Your task to perform on an android device: turn off wifi Image 0: 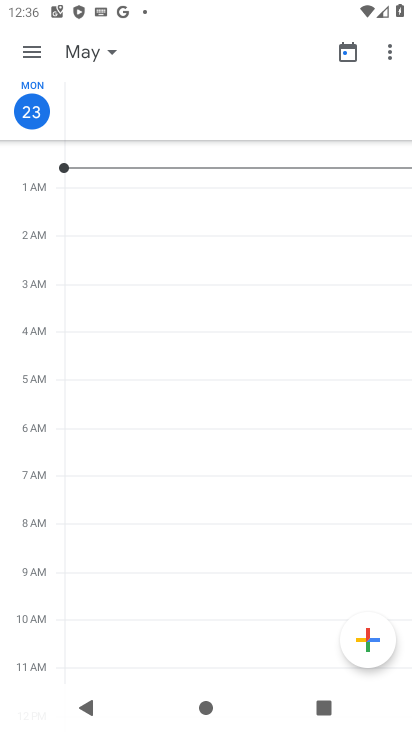
Step 0: press home button
Your task to perform on an android device: turn off wifi Image 1: 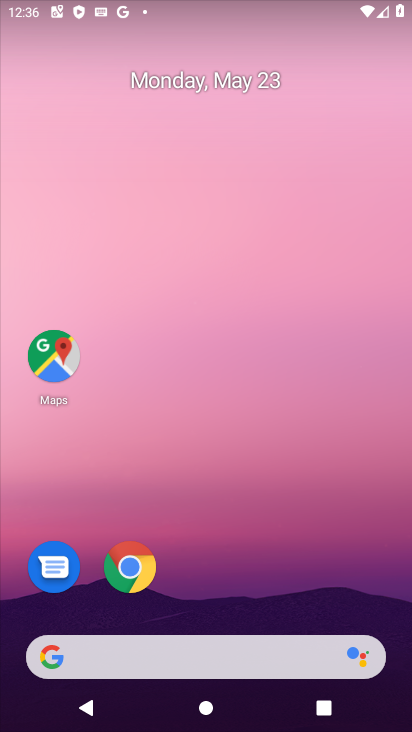
Step 1: drag from (233, 602) to (197, 83)
Your task to perform on an android device: turn off wifi Image 2: 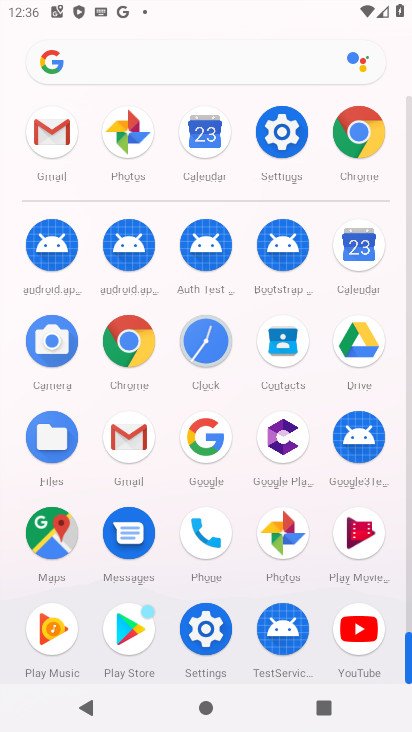
Step 2: click (275, 133)
Your task to perform on an android device: turn off wifi Image 3: 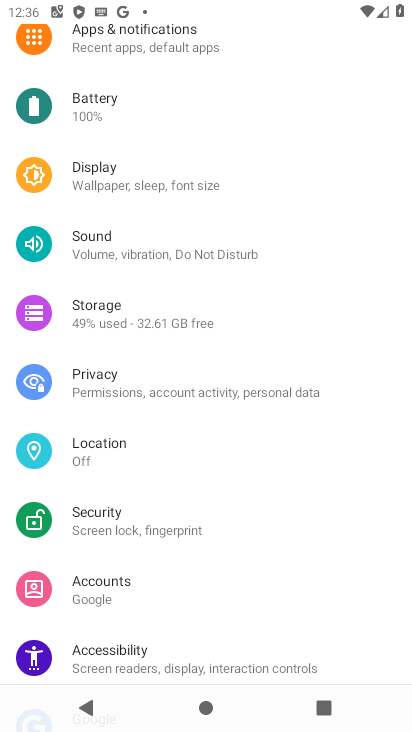
Step 3: drag from (252, 78) to (222, 607)
Your task to perform on an android device: turn off wifi Image 4: 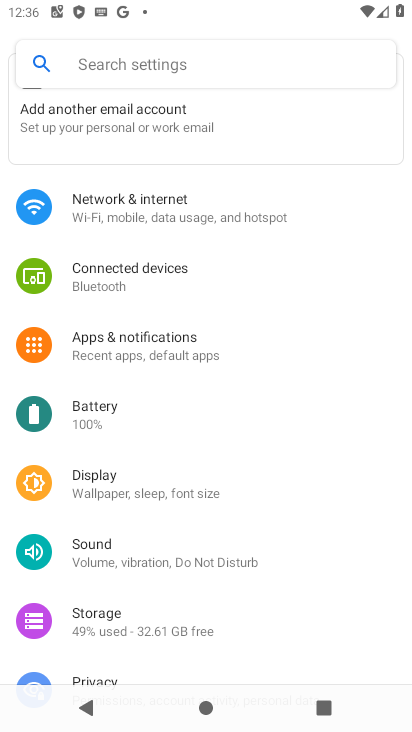
Step 4: click (216, 206)
Your task to perform on an android device: turn off wifi Image 5: 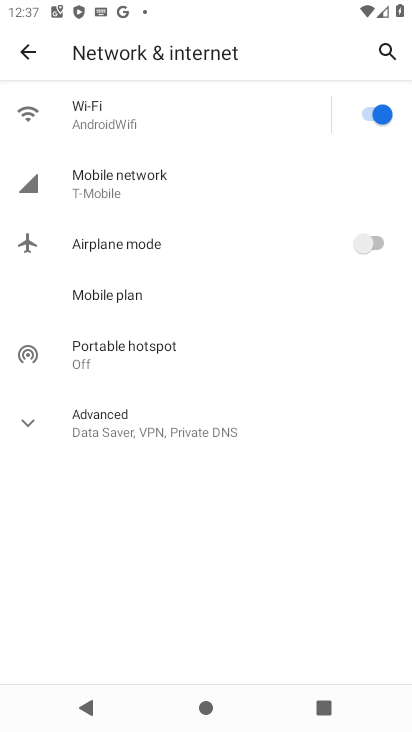
Step 5: click (378, 115)
Your task to perform on an android device: turn off wifi Image 6: 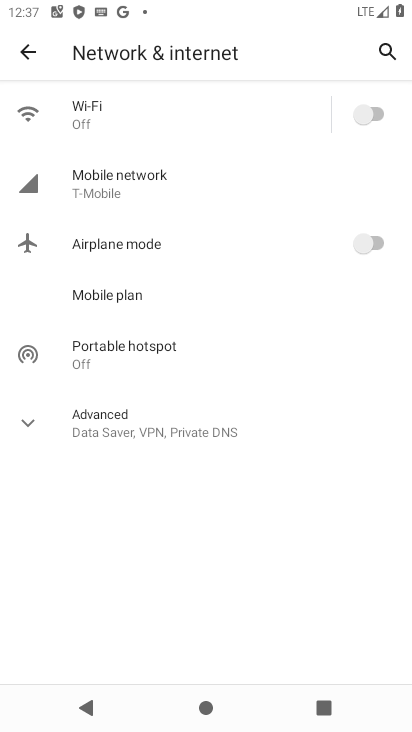
Step 6: task complete